Your task to perform on an android device: turn on sleep mode Image 0: 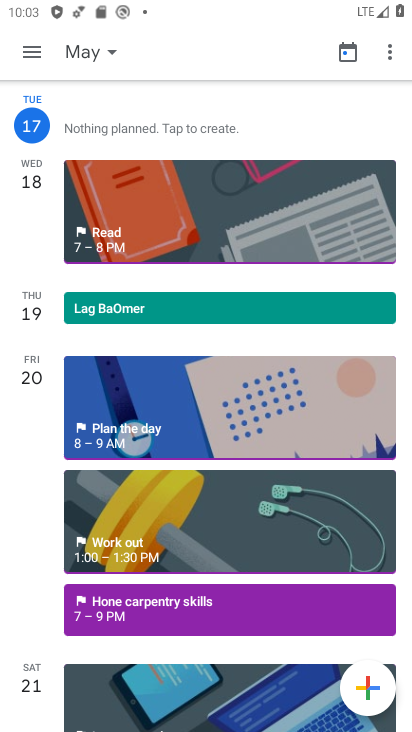
Step 0: press home button
Your task to perform on an android device: turn on sleep mode Image 1: 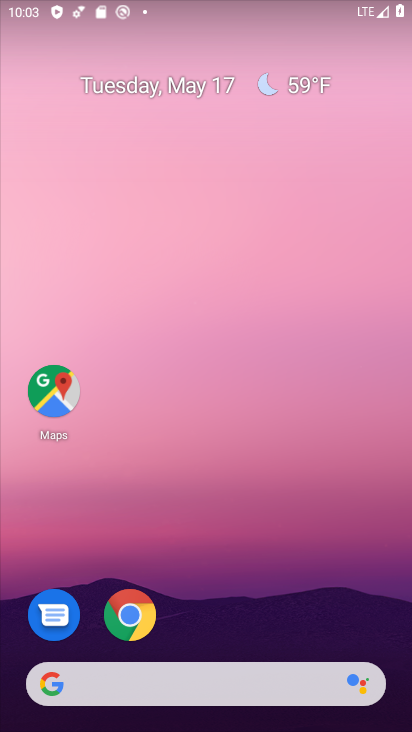
Step 1: drag from (162, 679) to (316, 108)
Your task to perform on an android device: turn on sleep mode Image 2: 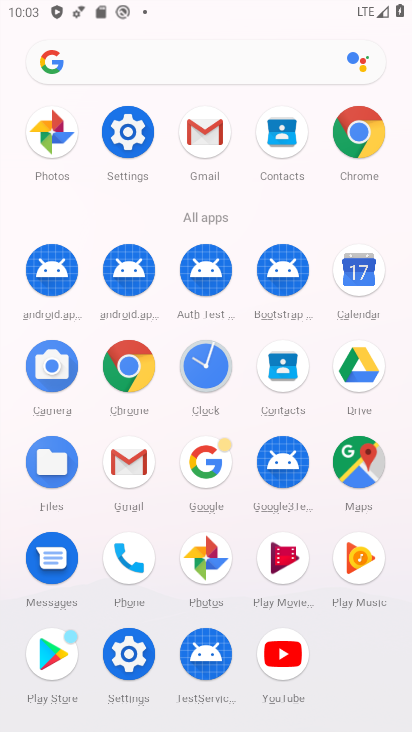
Step 2: click (132, 140)
Your task to perform on an android device: turn on sleep mode Image 3: 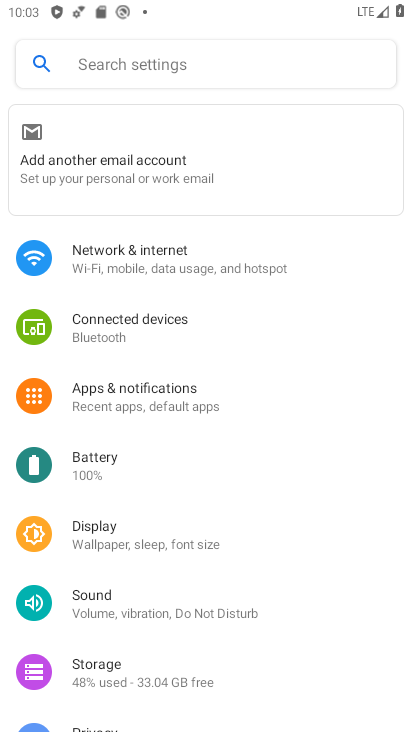
Step 3: click (140, 539)
Your task to perform on an android device: turn on sleep mode Image 4: 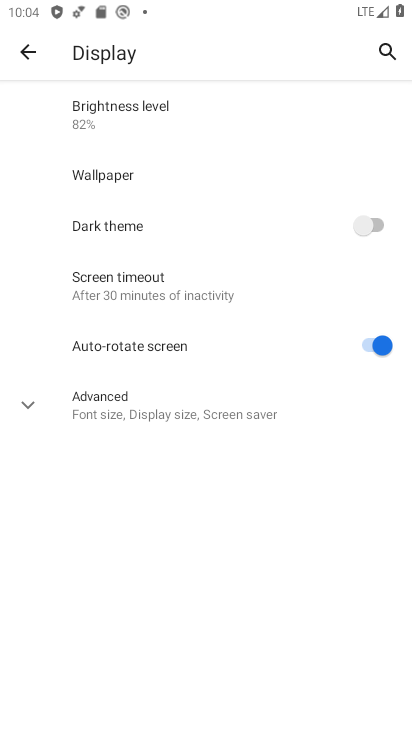
Step 4: task complete